Your task to perform on an android device: Open Wikipedia Image 0: 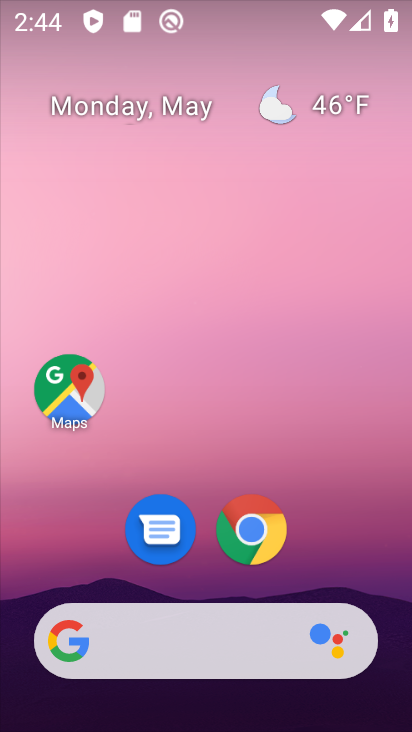
Step 0: drag from (372, 307) to (381, 7)
Your task to perform on an android device: Open Wikipedia Image 1: 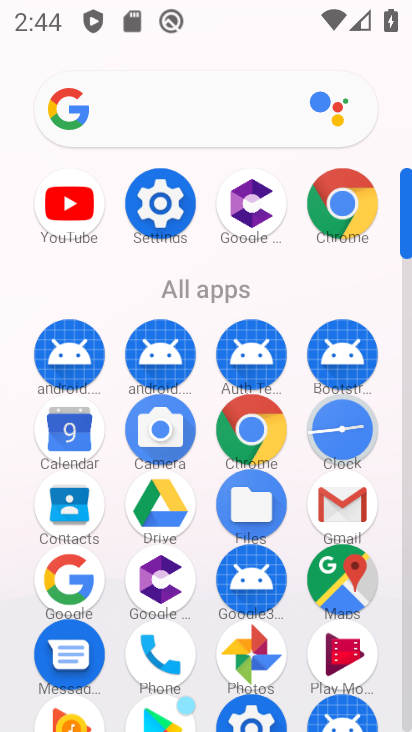
Step 1: click (362, 203)
Your task to perform on an android device: Open Wikipedia Image 2: 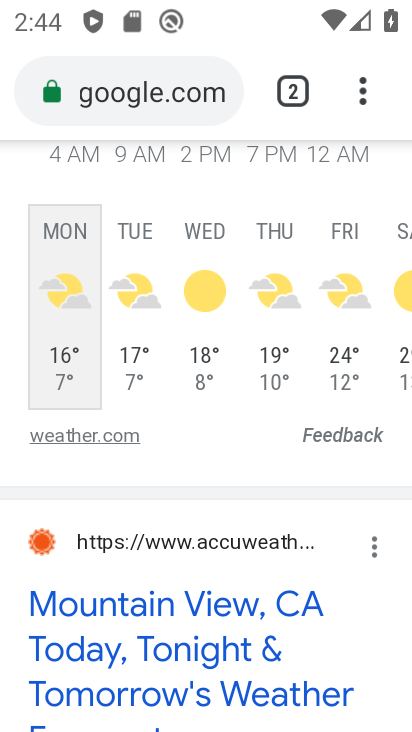
Step 2: click (167, 98)
Your task to perform on an android device: Open Wikipedia Image 3: 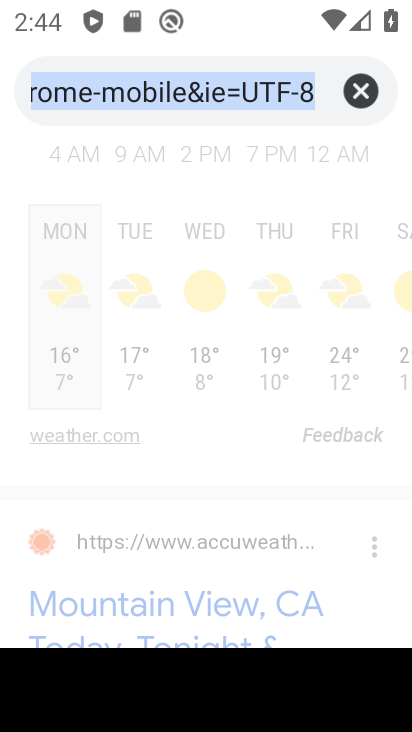
Step 3: click (357, 85)
Your task to perform on an android device: Open Wikipedia Image 4: 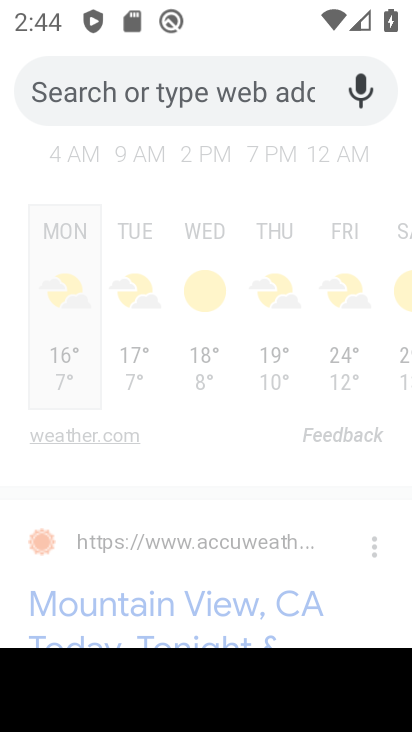
Step 4: type "wikipedia"
Your task to perform on an android device: Open Wikipedia Image 5: 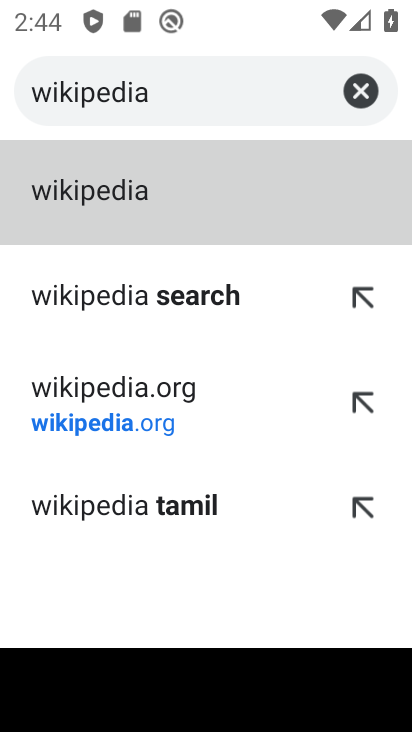
Step 5: click (136, 178)
Your task to perform on an android device: Open Wikipedia Image 6: 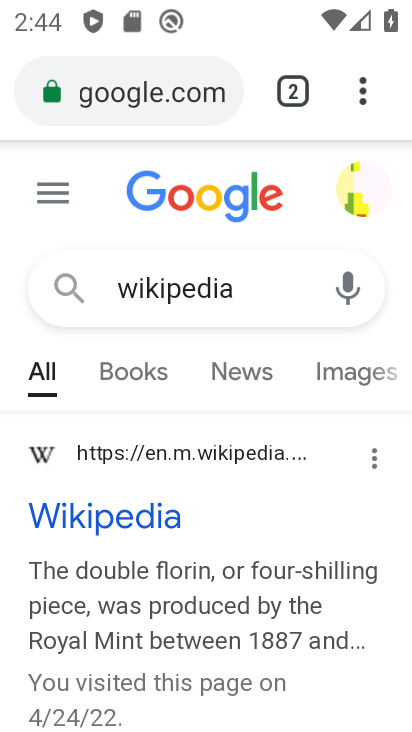
Step 6: click (114, 526)
Your task to perform on an android device: Open Wikipedia Image 7: 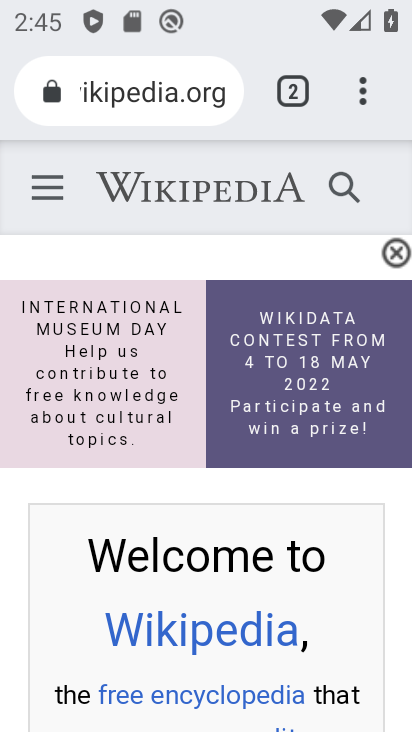
Step 7: press home button
Your task to perform on an android device: Open Wikipedia Image 8: 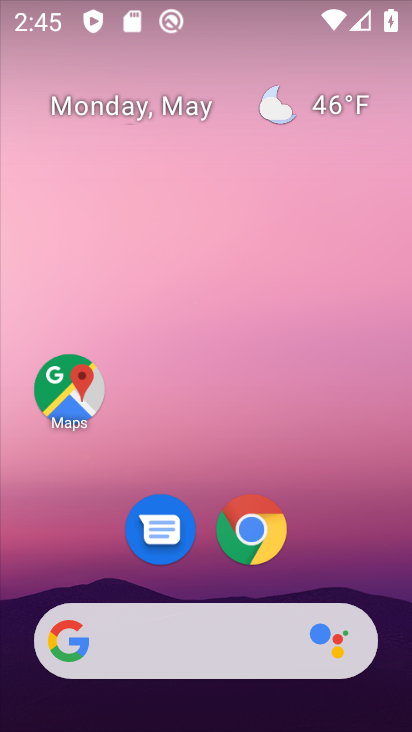
Step 8: drag from (393, 543) to (383, 175)
Your task to perform on an android device: Open Wikipedia Image 9: 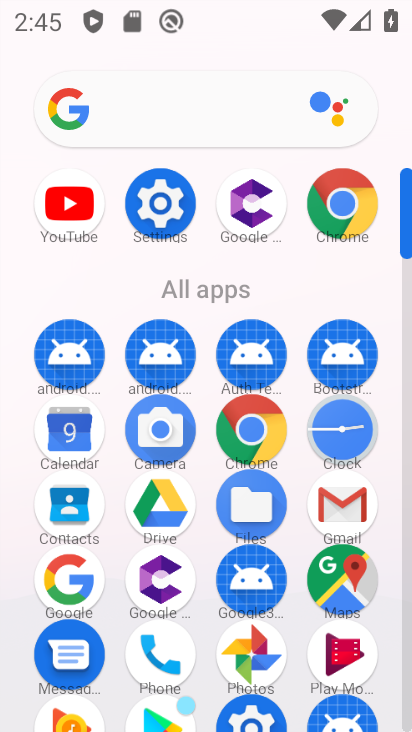
Step 9: click (248, 417)
Your task to perform on an android device: Open Wikipedia Image 10: 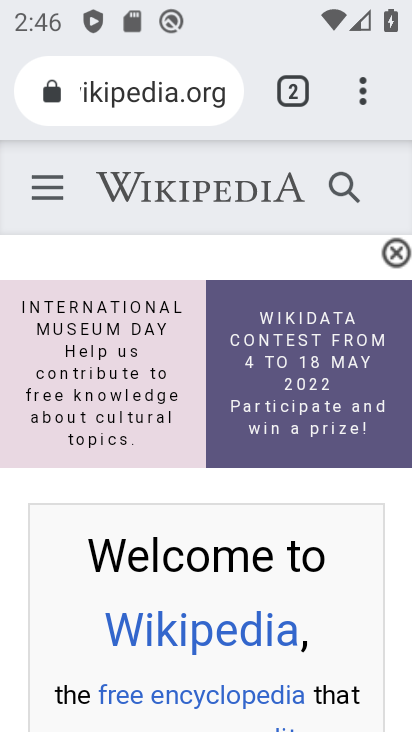
Step 10: task complete